Your task to perform on an android device: change your default location settings in chrome Image 0: 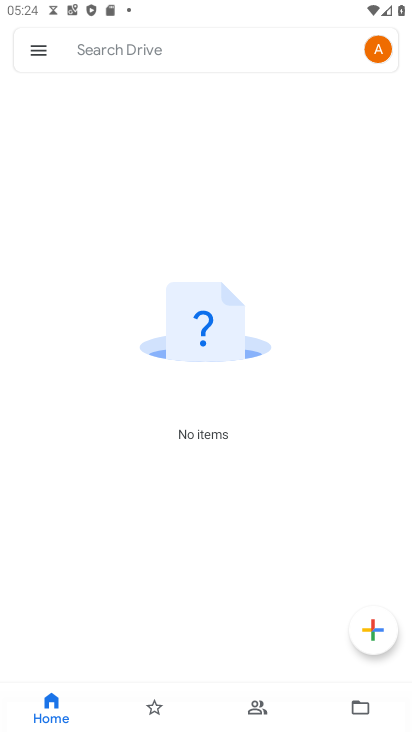
Step 0: press home button
Your task to perform on an android device: change your default location settings in chrome Image 1: 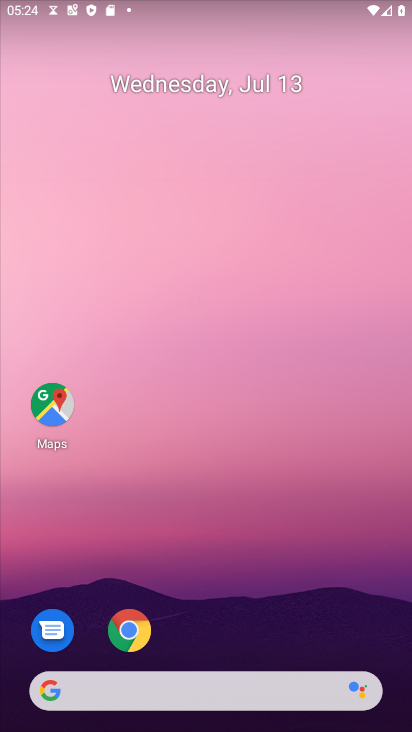
Step 1: drag from (267, 432) to (323, 122)
Your task to perform on an android device: change your default location settings in chrome Image 2: 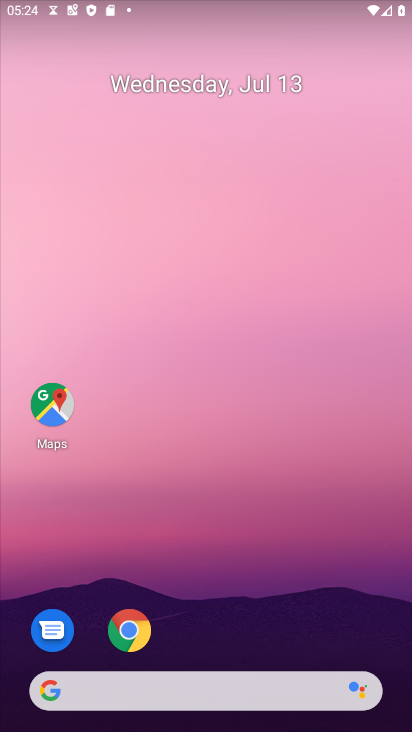
Step 2: drag from (247, 638) to (311, 6)
Your task to perform on an android device: change your default location settings in chrome Image 3: 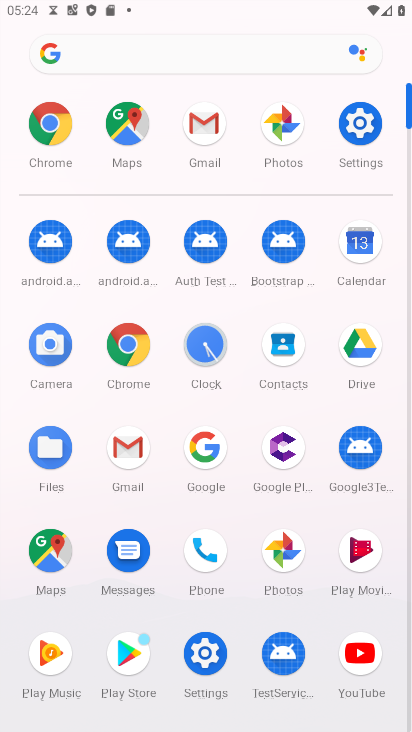
Step 3: click (134, 337)
Your task to perform on an android device: change your default location settings in chrome Image 4: 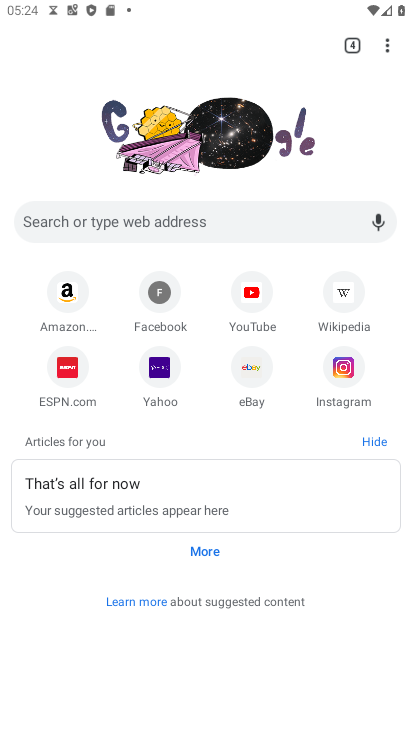
Step 4: drag from (390, 38) to (251, 380)
Your task to perform on an android device: change your default location settings in chrome Image 5: 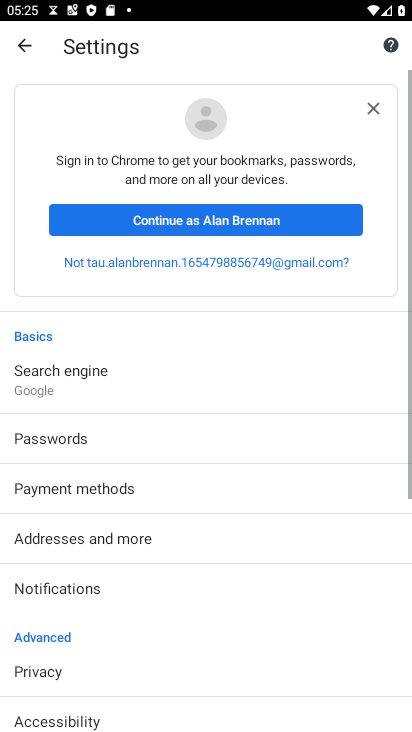
Step 5: drag from (246, 538) to (256, 107)
Your task to perform on an android device: change your default location settings in chrome Image 6: 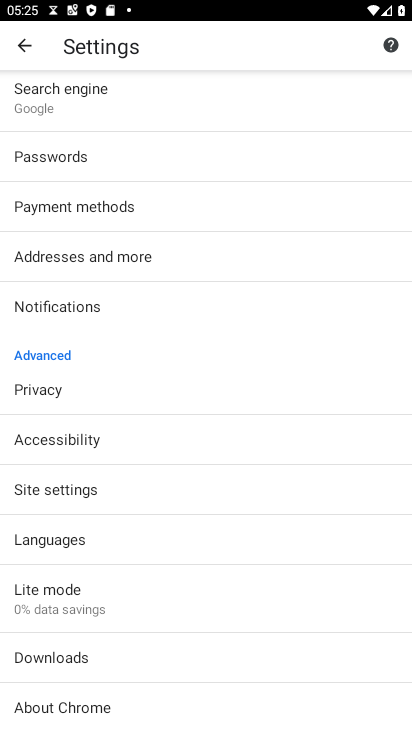
Step 6: click (85, 480)
Your task to perform on an android device: change your default location settings in chrome Image 7: 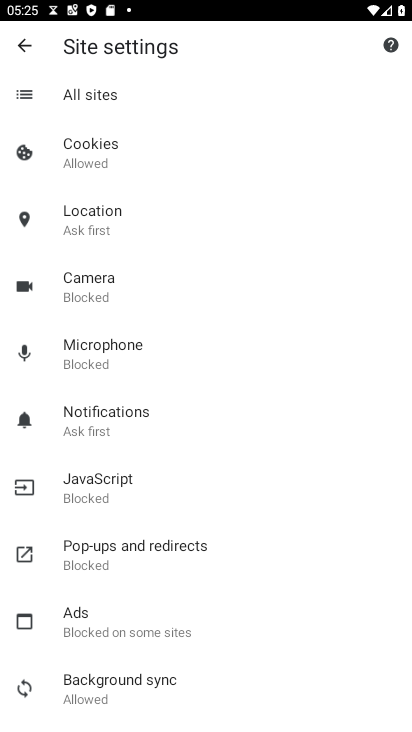
Step 7: click (139, 217)
Your task to perform on an android device: change your default location settings in chrome Image 8: 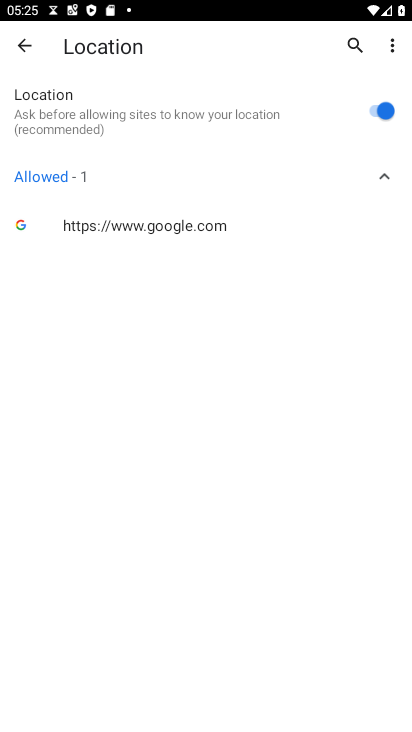
Step 8: task complete